Your task to perform on an android device: Search for sushi restaurants on Maps Image 0: 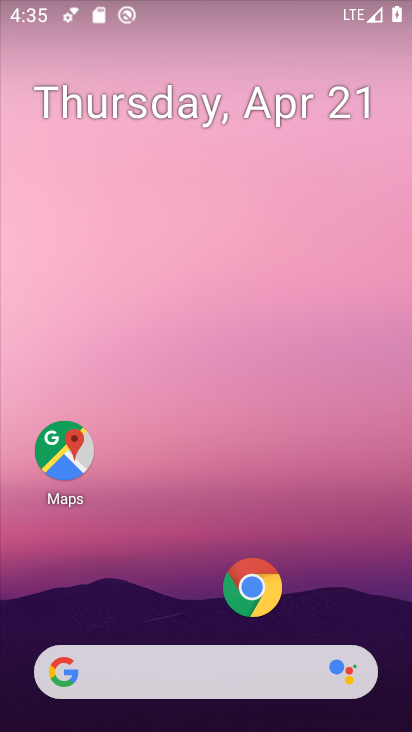
Step 0: click (65, 457)
Your task to perform on an android device: Search for sushi restaurants on Maps Image 1: 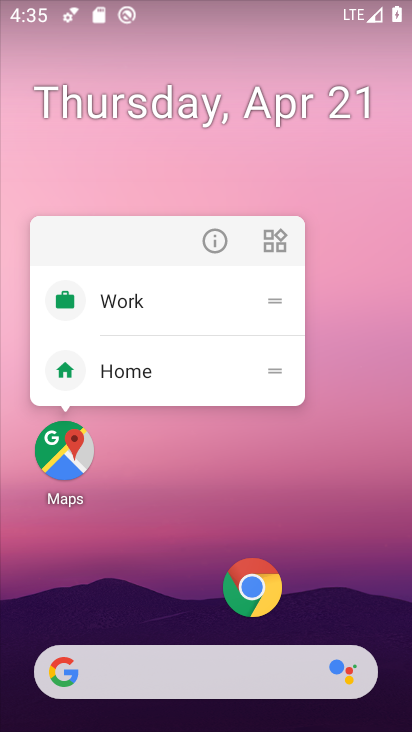
Step 1: click (65, 457)
Your task to perform on an android device: Search for sushi restaurants on Maps Image 2: 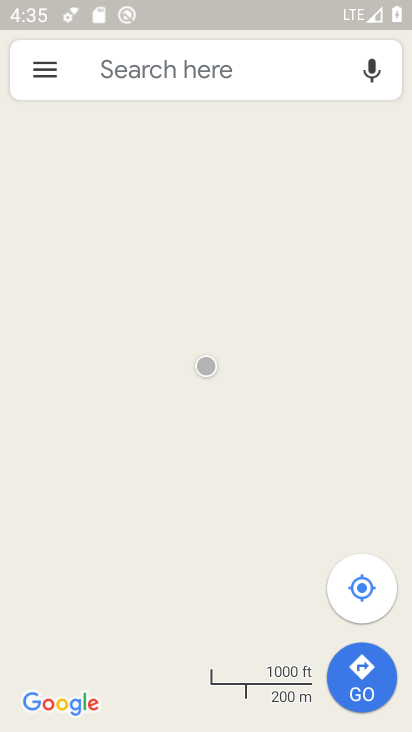
Step 2: click (175, 68)
Your task to perform on an android device: Search for sushi restaurants on Maps Image 3: 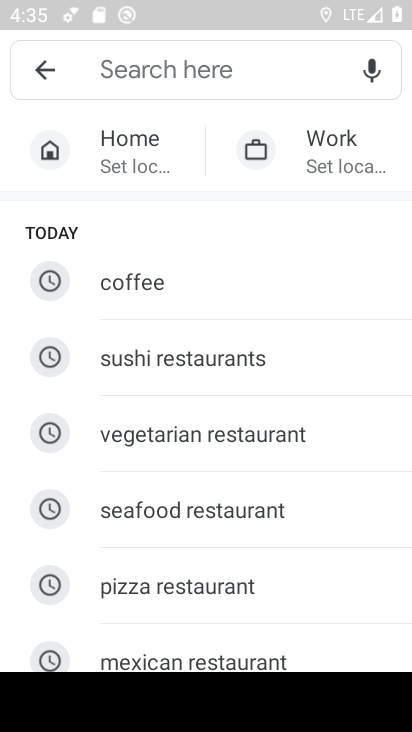
Step 3: type "sushi restaurants "
Your task to perform on an android device: Search for sushi restaurants on Maps Image 4: 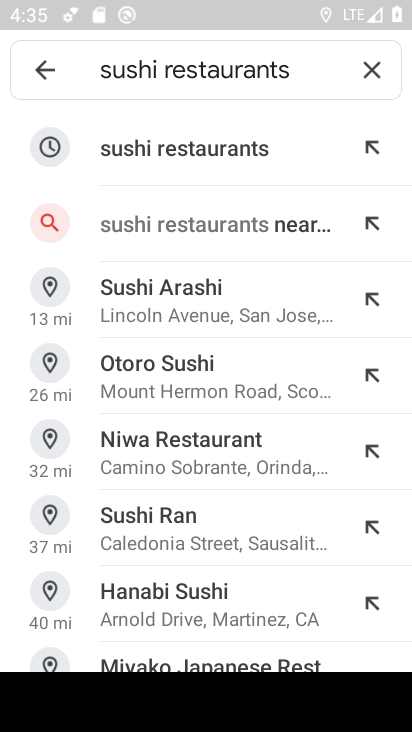
Step 4: click (204, 166)
Your task to perform on an android device: Search for sushi restaurants on Maps Image 5: 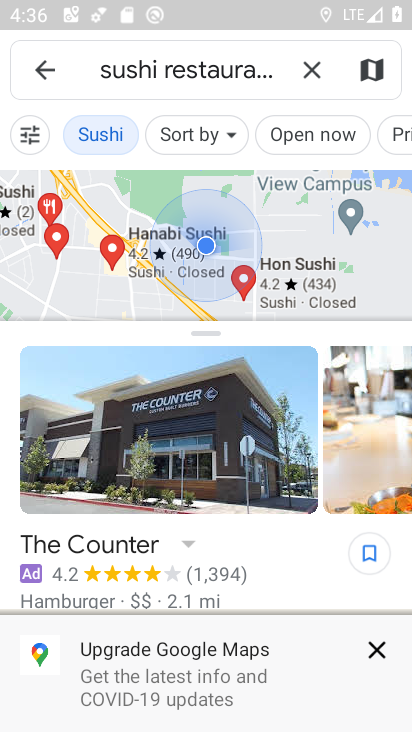
Step 5: click (374, 654)
Your task to perform on an android device: Search for sushi restaurants on Maps Image 6: 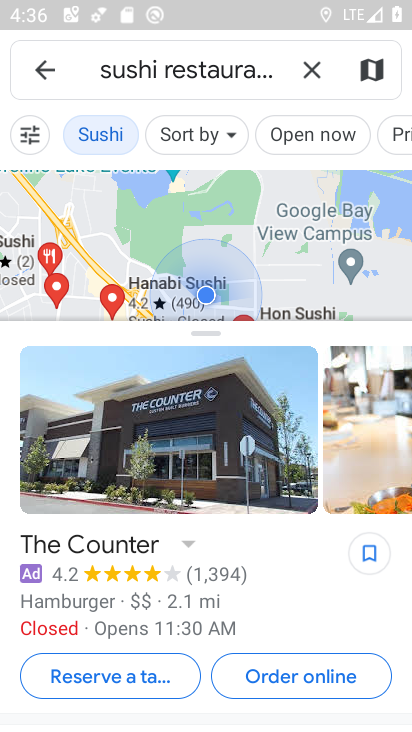
Step 6: task complete